Your task to perform on an android device: What is the recent news? Image 0: 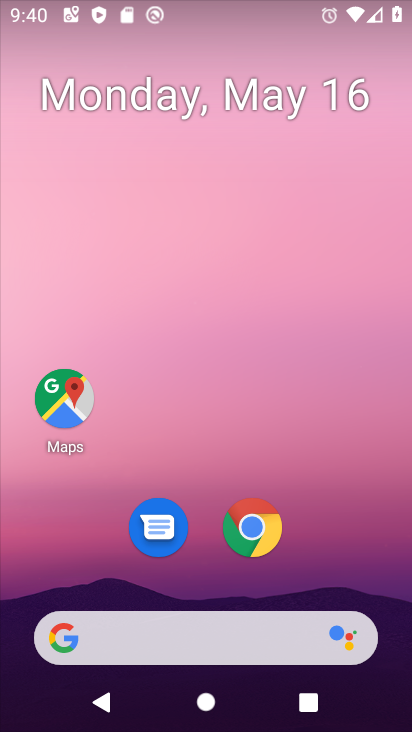
Step 0: click (130, 632)
Your task to perform on an android device: What is the recent news? Image 1: 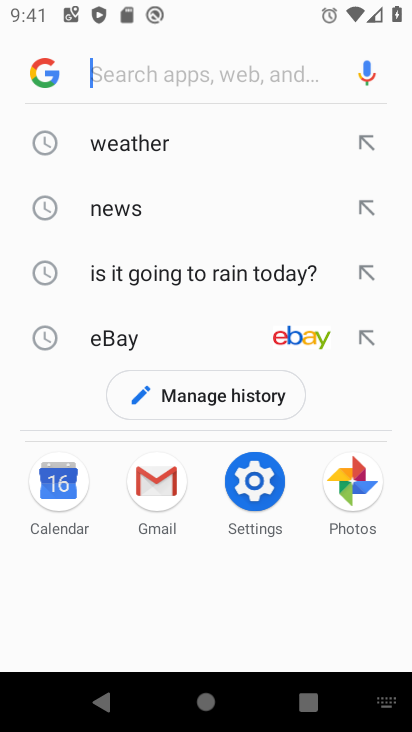
Step 1: type "recent new"
Your task to perform on an android device: What is the recent news? Image 2: 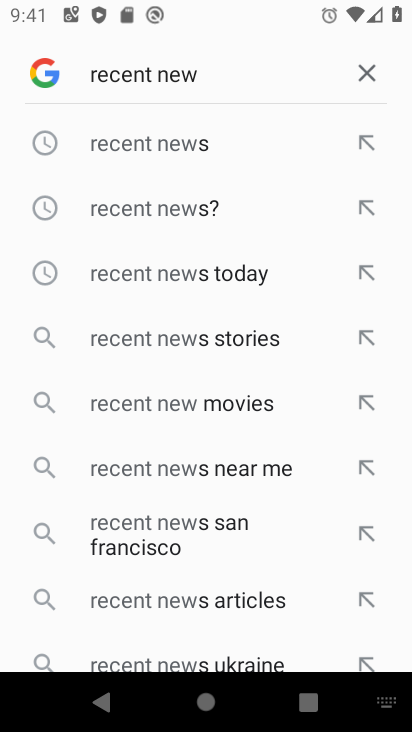
Step 2: click (142, 150)
Your task to perform on an android device: What is the recent news? Image 3: 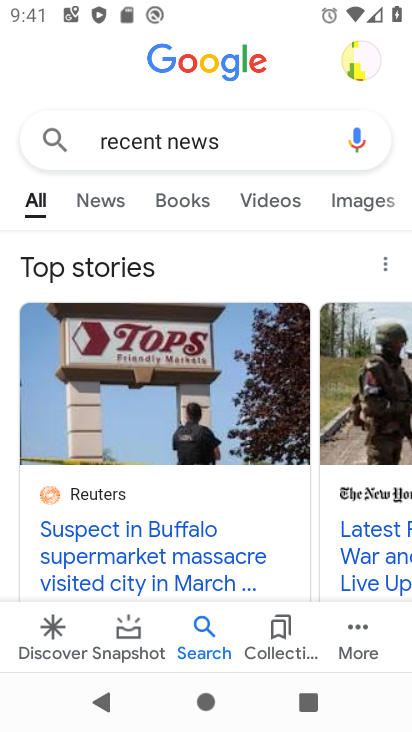
Step 3: click (104, 201)
Your task to perform on an android device: What is the recent news? Image 4: 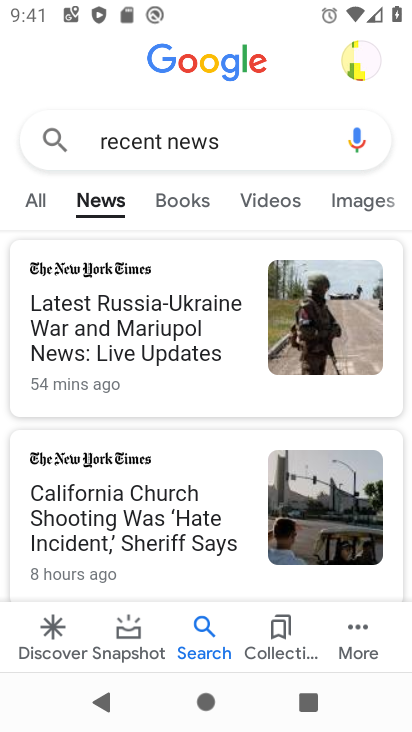
Step 4: click (109, 327)
Your task to perform on an android device: What is the recent news? Image 5: 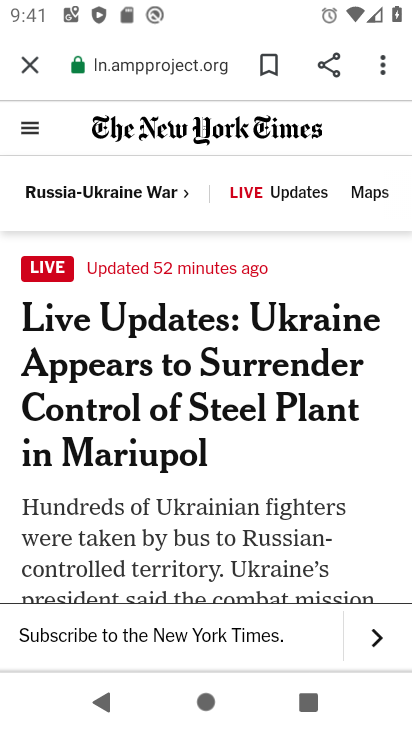
Step 5: task complete